Your task to perform on an android device: open app "File Manager" (install if not already installed) Image 0: 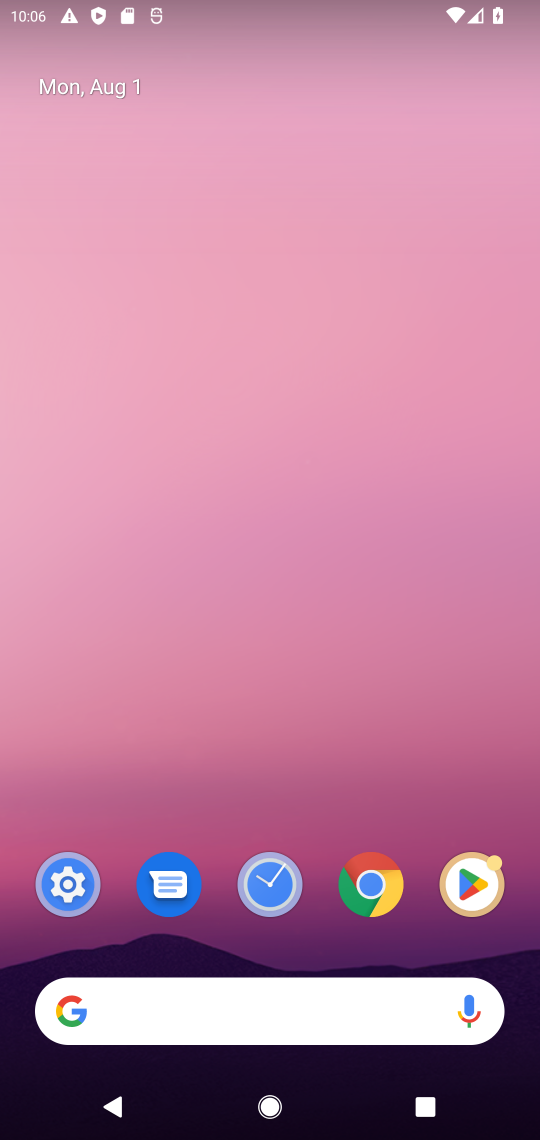
Step 0: click (473, 886)
Your task to perform on an android device: open app "File Manager" (install if not already installed) Image 1: 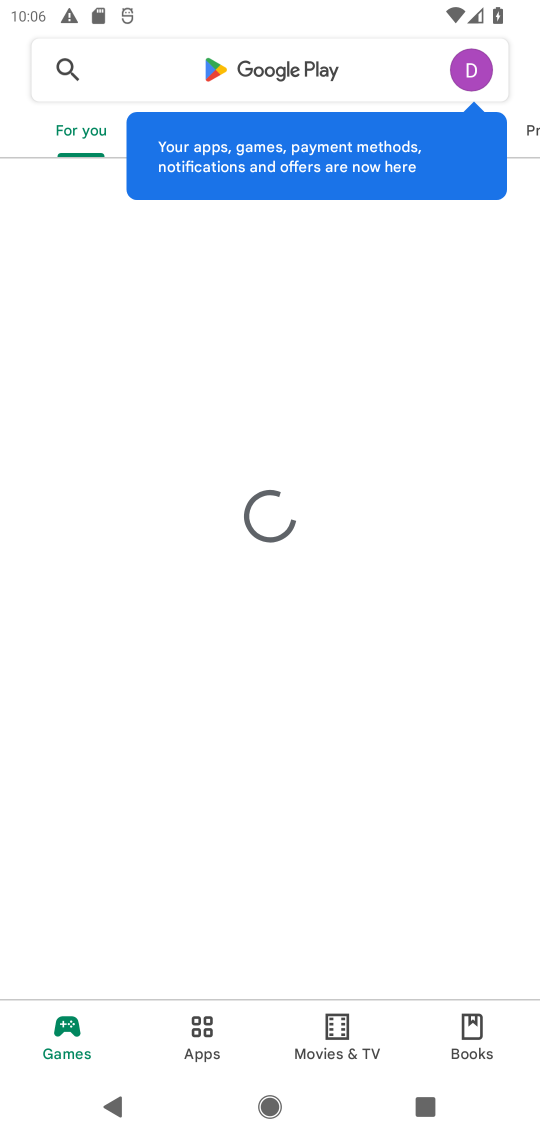
Step 1: click (311, 72)
Your task to perform on an android device: open app "File Manager" (install if not already installed) Image 2: 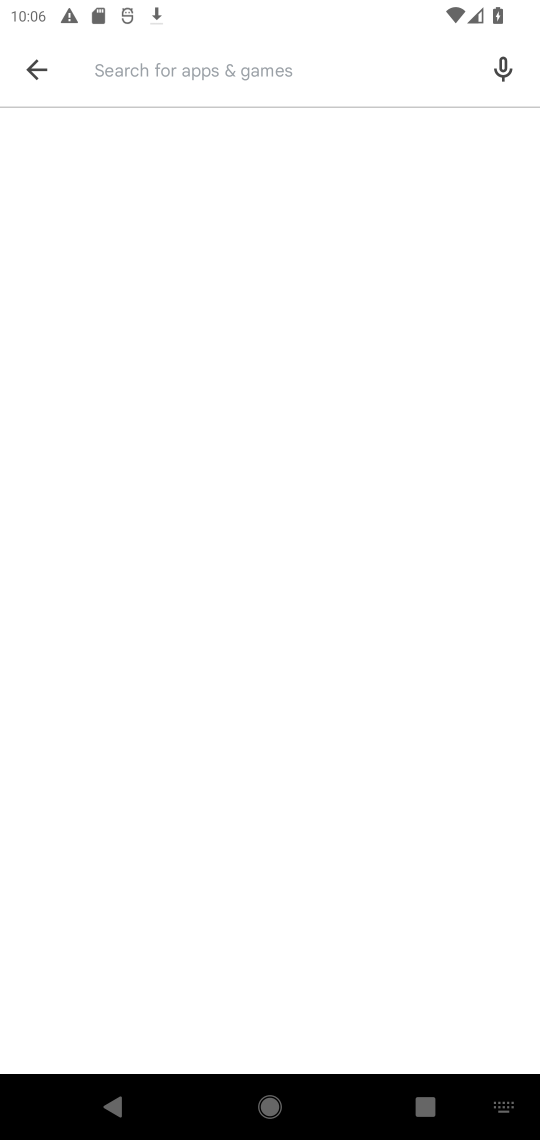
Step 2: type "file manager"
Your task to perform on an android device: open app "File Manager" (install if not already installed) Image 3: 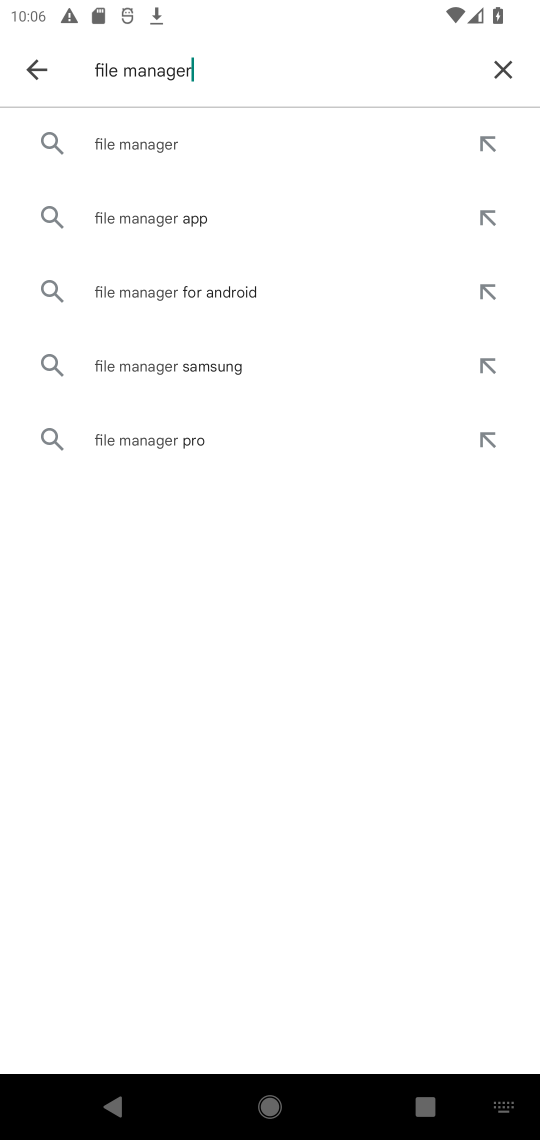
Step 3: click (300, 143)
Your task to perform on an android device: open app "File Manager" (install if not already installed) Image 4: 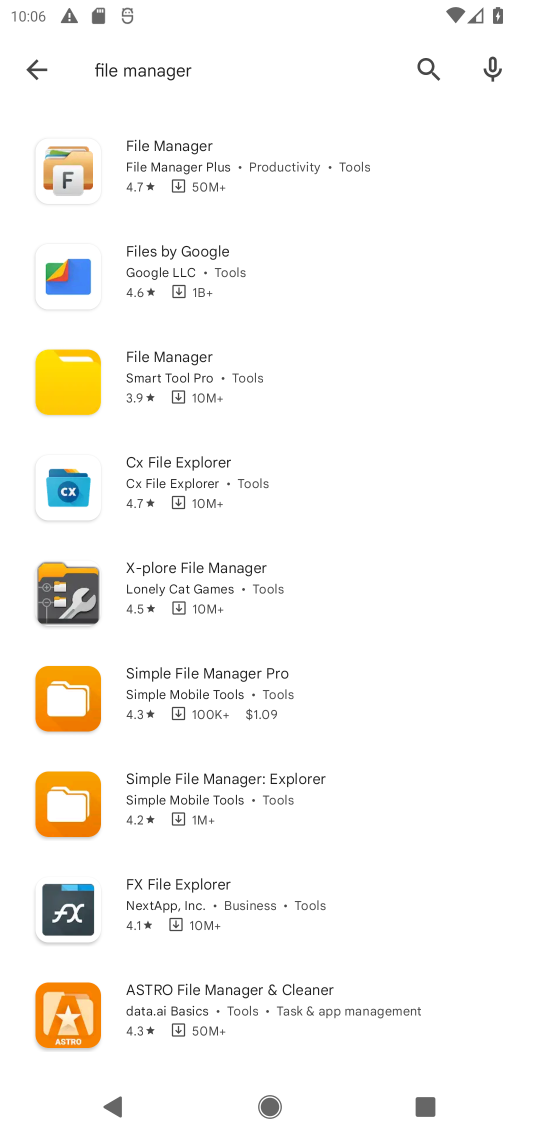
Step 4: click (300, 143)
Your task to perform on an android device: open app "File Manager" (install if not already installed) Image 5: 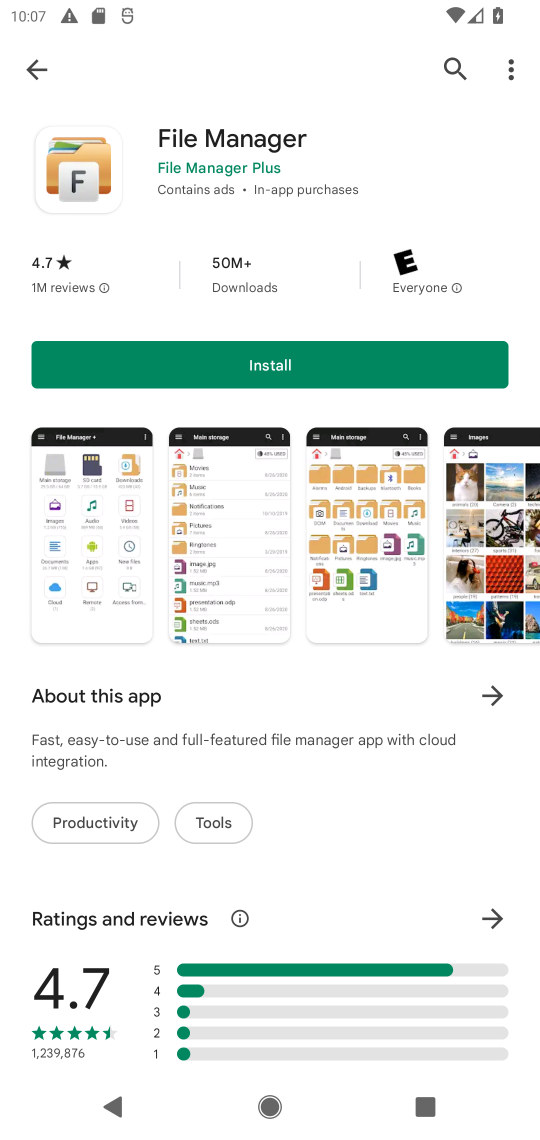
Step 5: click (200, 370)
Your task to perform on an android device: open app "File Manager" (install if not already installed) Image 6: 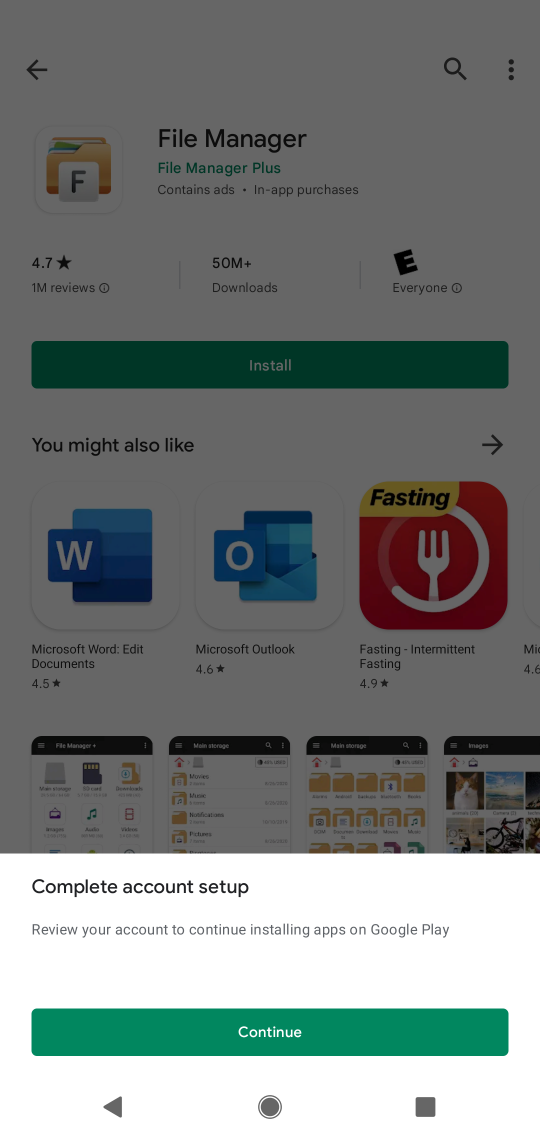
Step 6: click (345, 1030)
Your task to perform on an android device: open app "File Manager" (install if not already installed) Image 7: 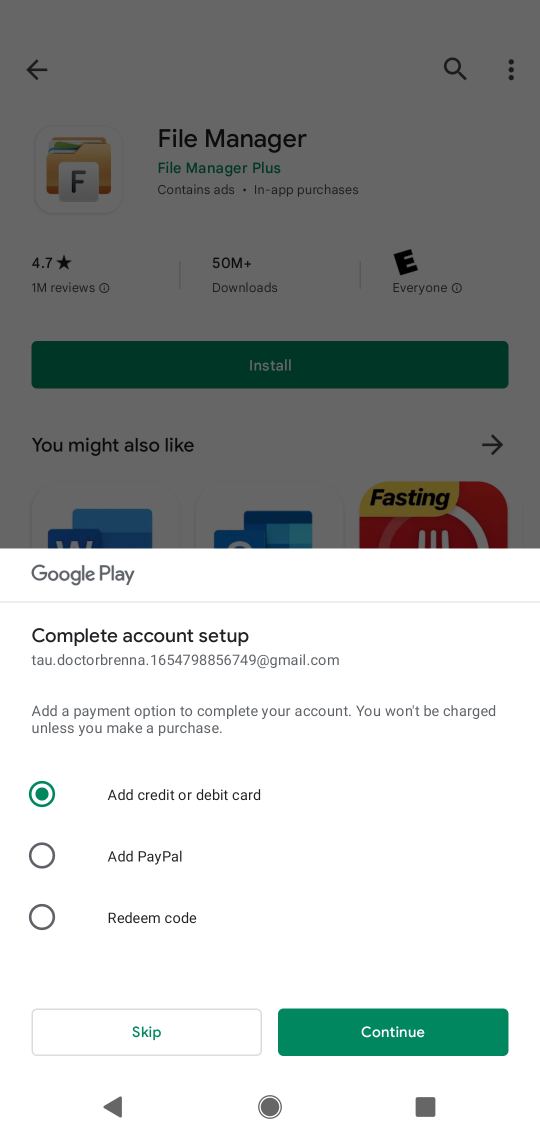
Step 7: click (101, 1039)
Your task to perform on an android device: open app "File Manager" (install if not already installed) Image 8: 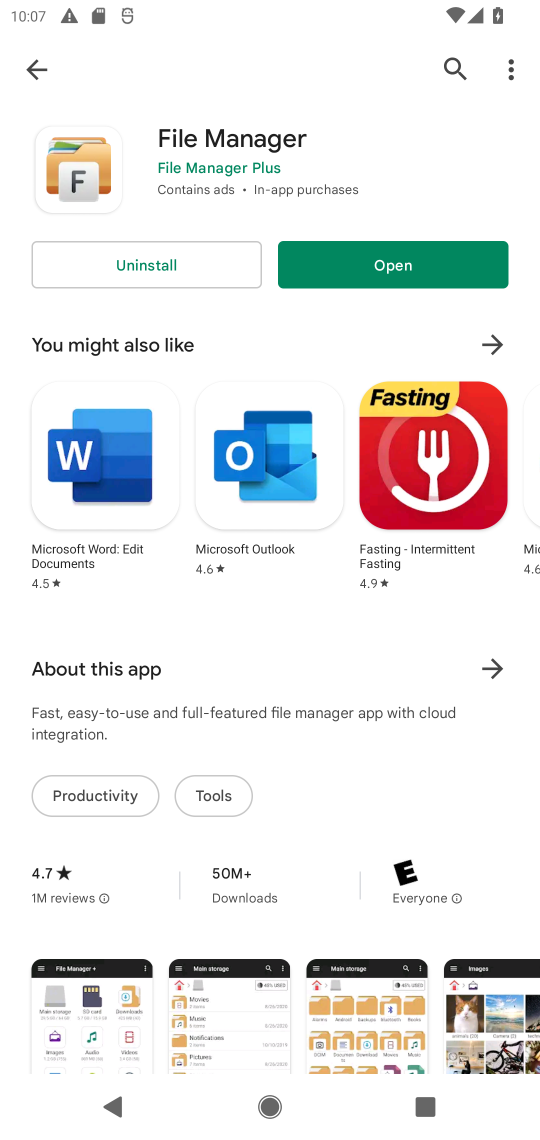
Step 8: click (370, 266)
Your task to perform on an android device: open app "File Manager" (install if not already installed) Image 9: 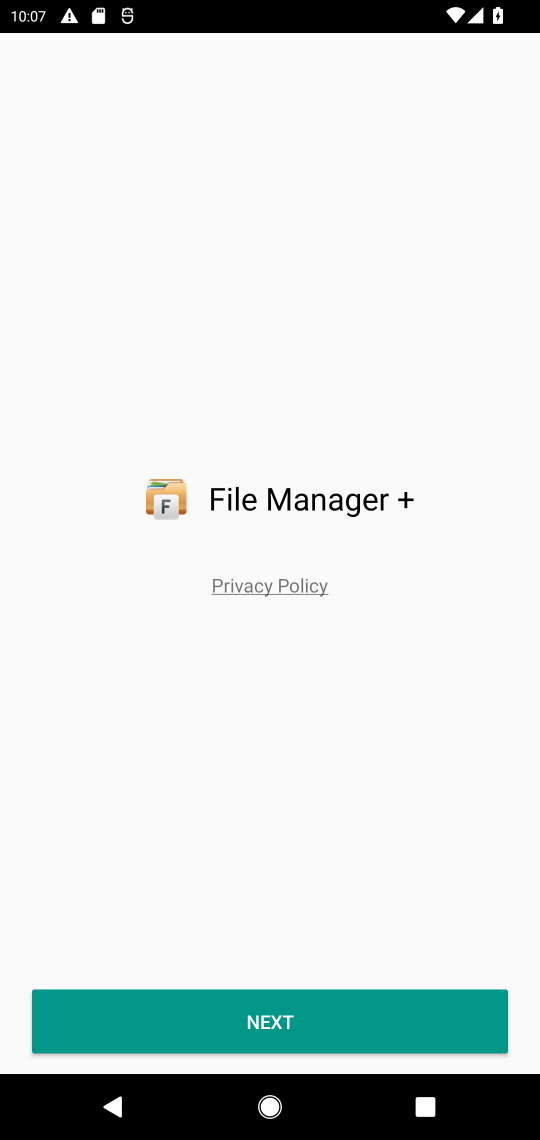
Step 9: task complete